Your task to perform on an android device: open chrome privacy settings Image 0: 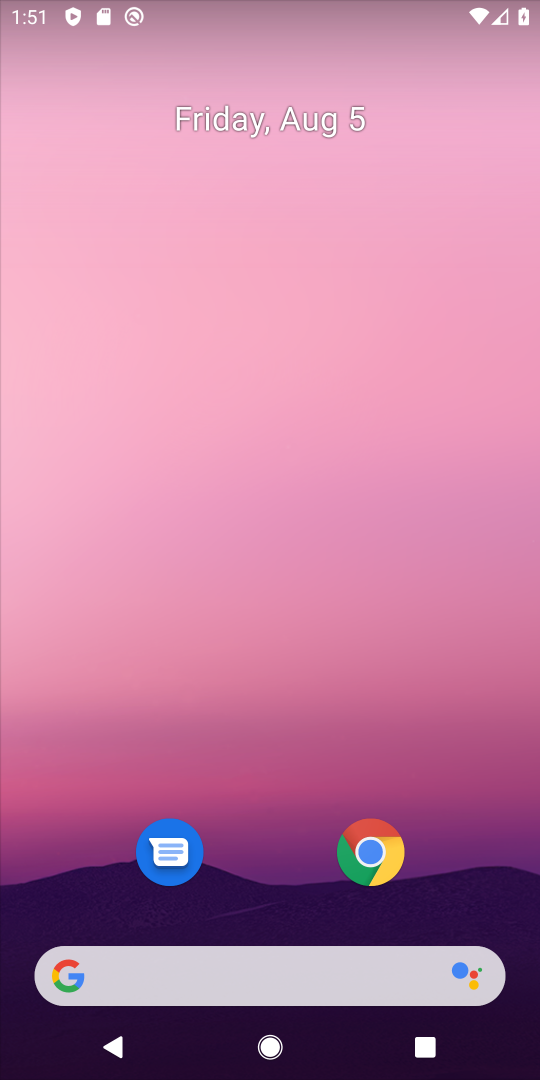
Step 0: click (376, 862)
Your task to perform on an android device: open chrome privacy settings Image 1: 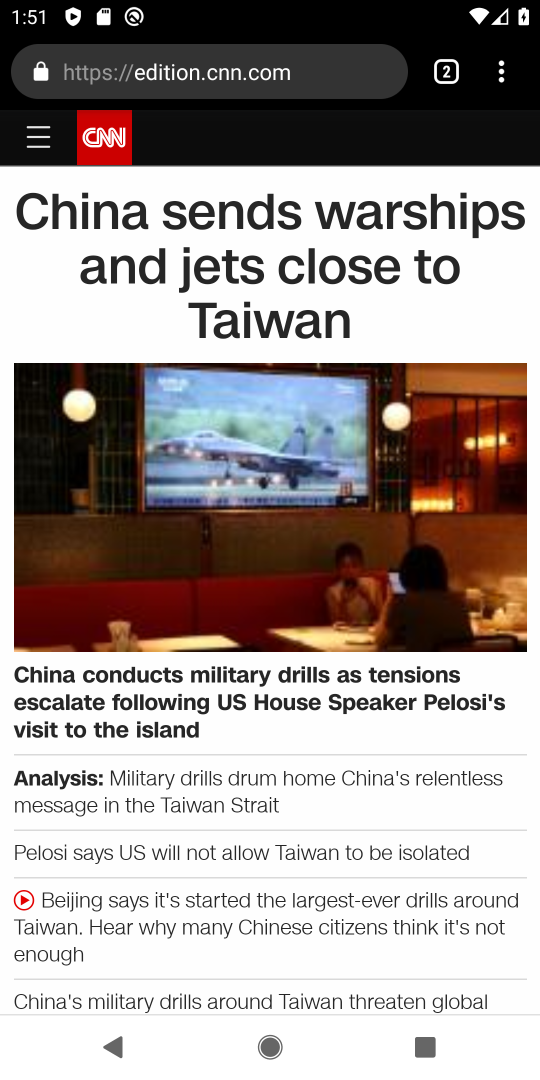
Step 1: click (496, 83)
Your task to perform on an android device: open chrome privacy settings Image 2: 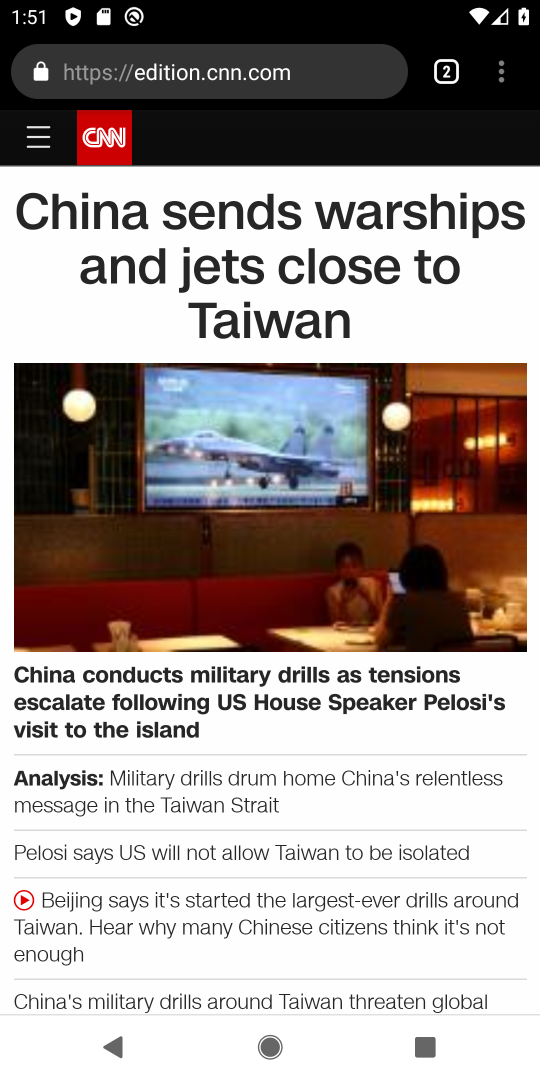
Step 2: click (496, 83)
Your task to perform on an android device: open chrome privacy settings Image 3: 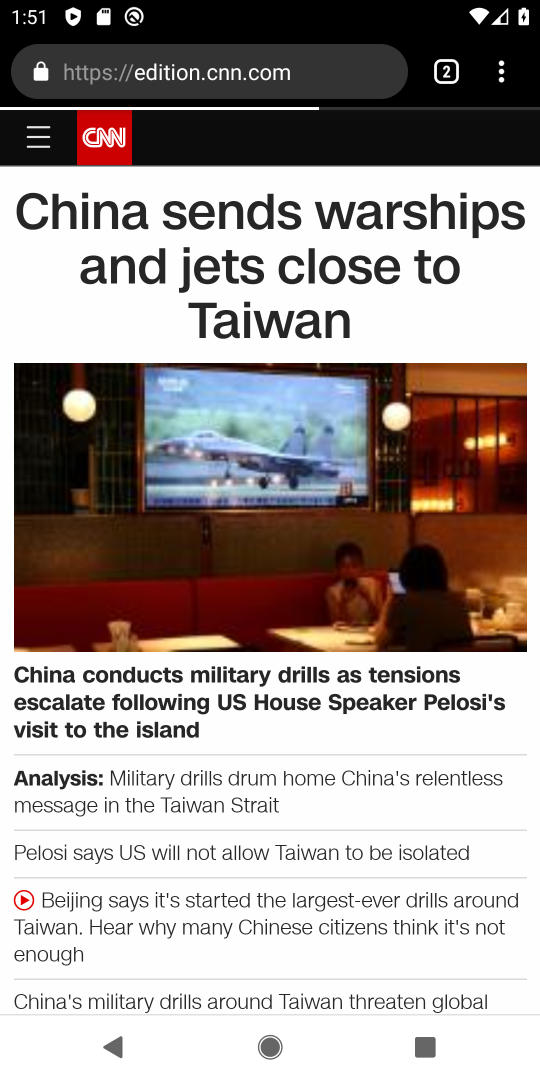
Step 3: click (513, 79)
Your task to perform on an android device: open chrome privacy settings Image 4: 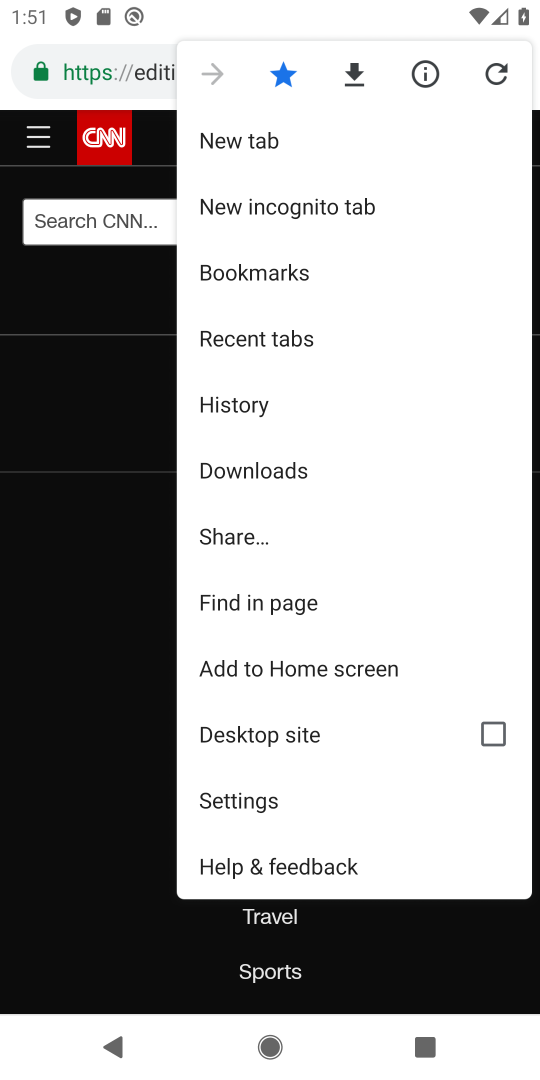
Step 4: click (253, 796)
Your task to perform on an android device: open chrome privacy settings Image 5: 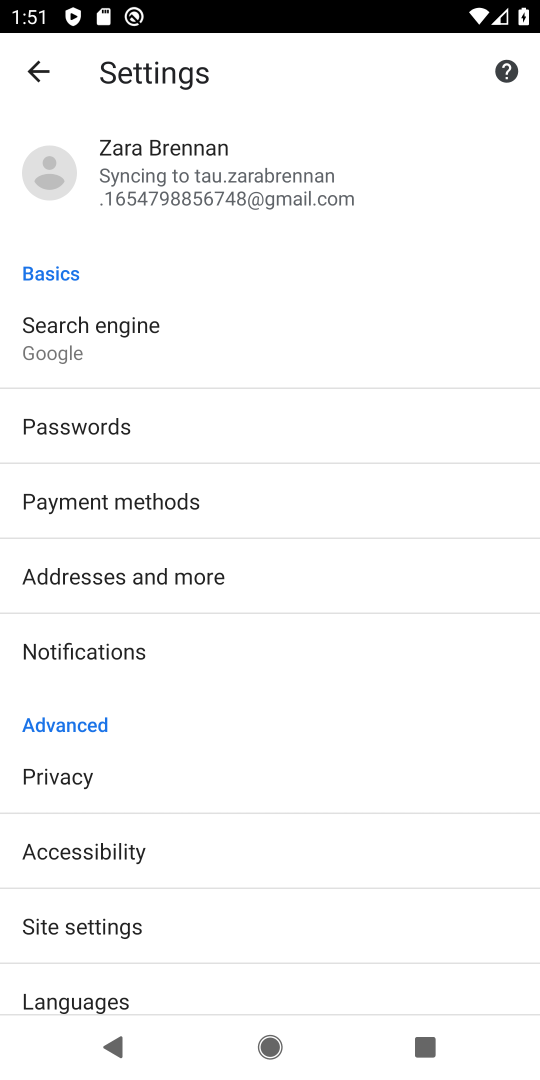
Step 5: click (57, 782)
Your task to perform on an android device: open chrome privacy settings Image 6: 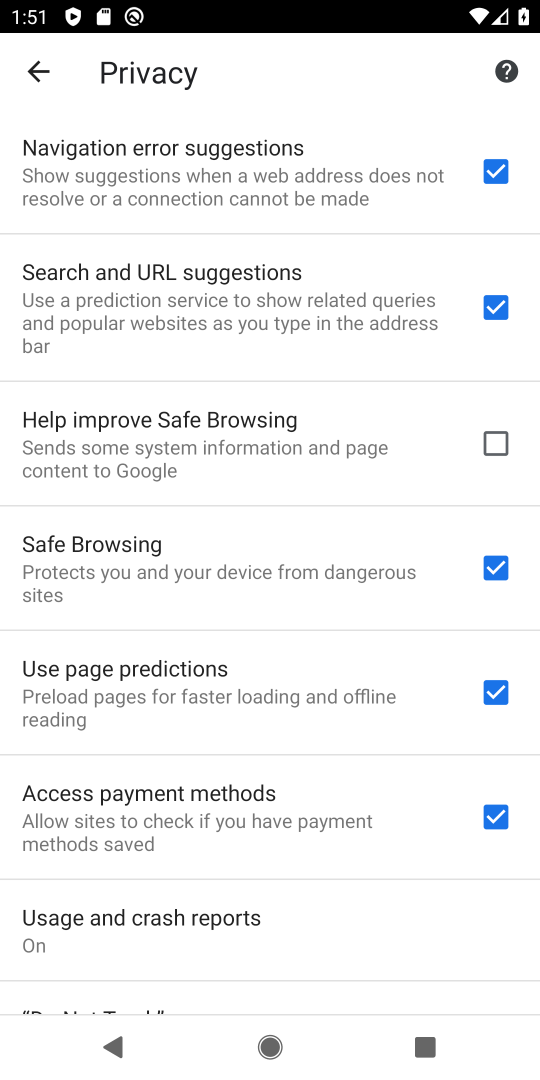
Step 6: task complete